Your task to perform on an android device: refresh tabs in the chrome app Image 0: 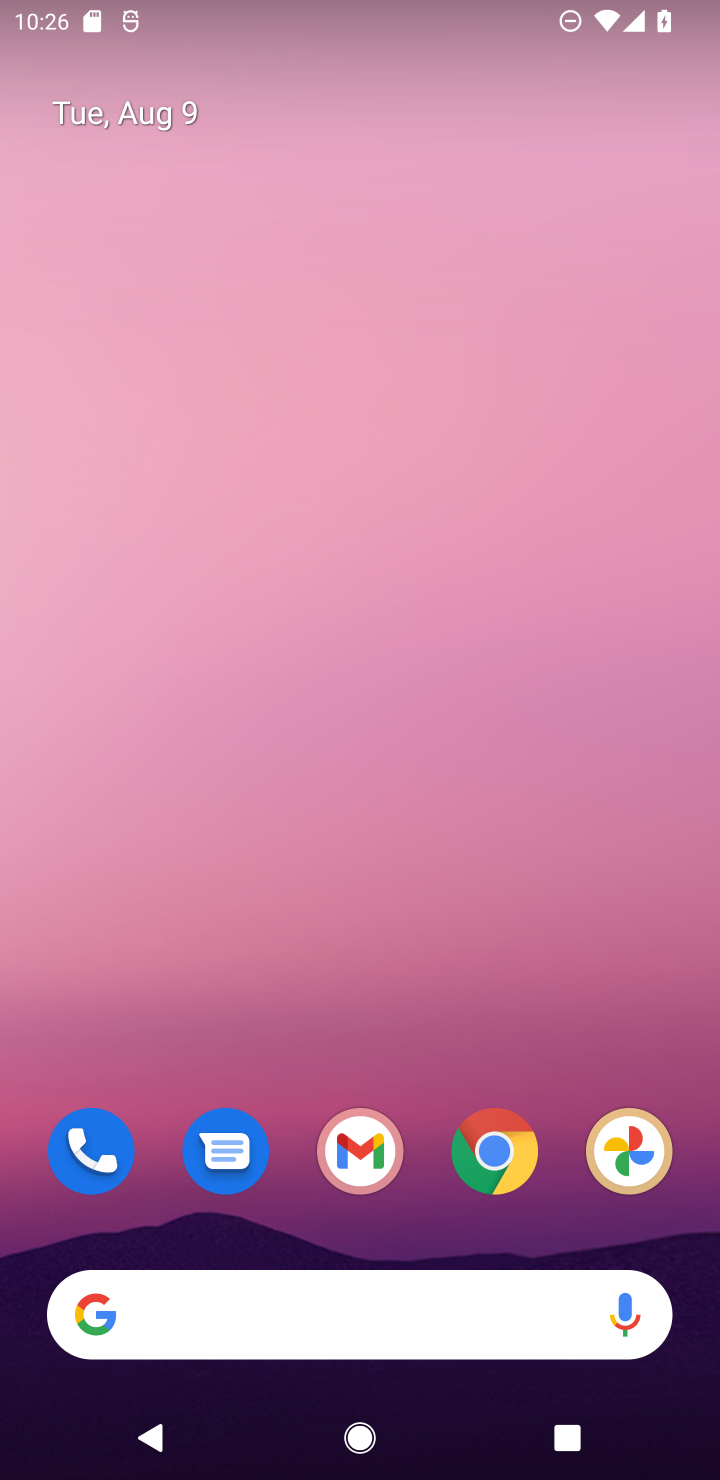
Step 0: click (493, 1164)
Your task to perform on an android device: refresh tabs in the chrome app Image 1: 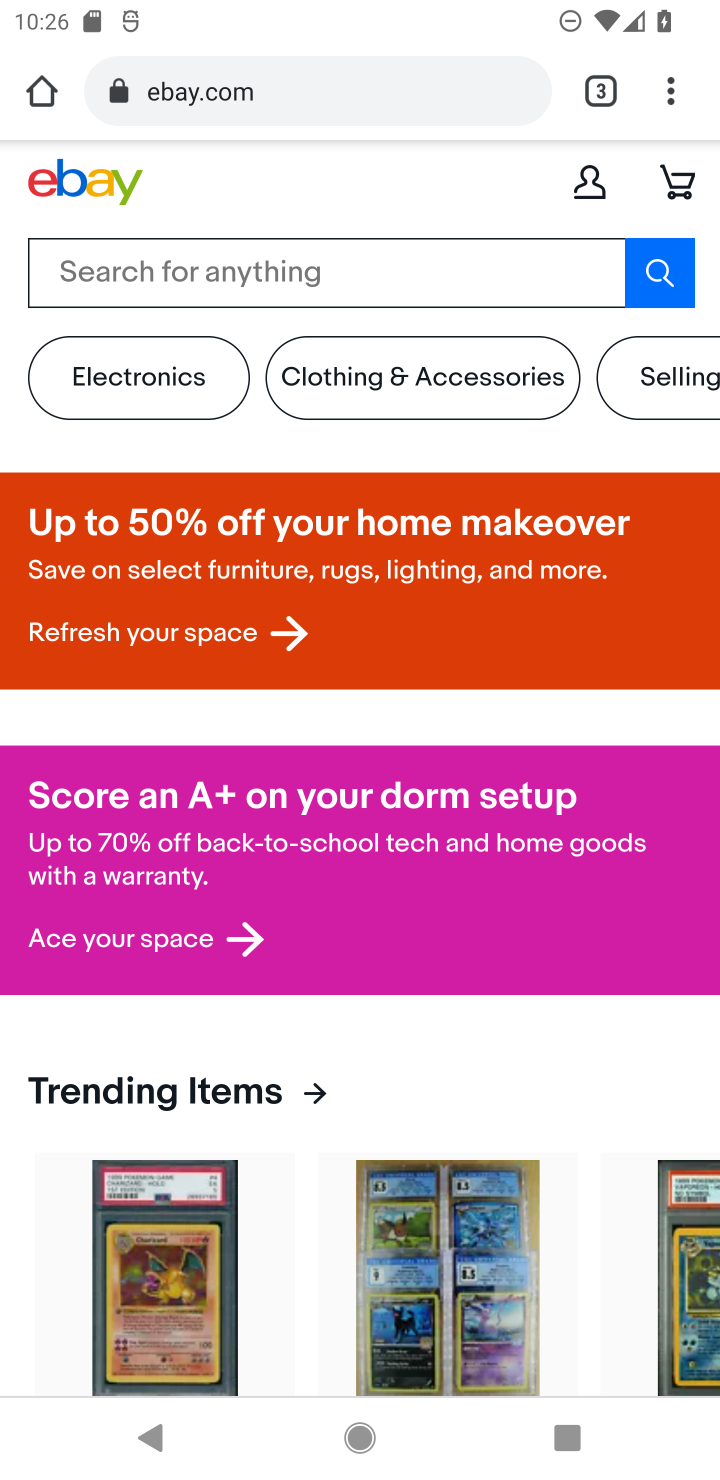
Step 1: click (604, 94)
Your task to perform on an android device: refresh tabs in the chrome app Image 2: 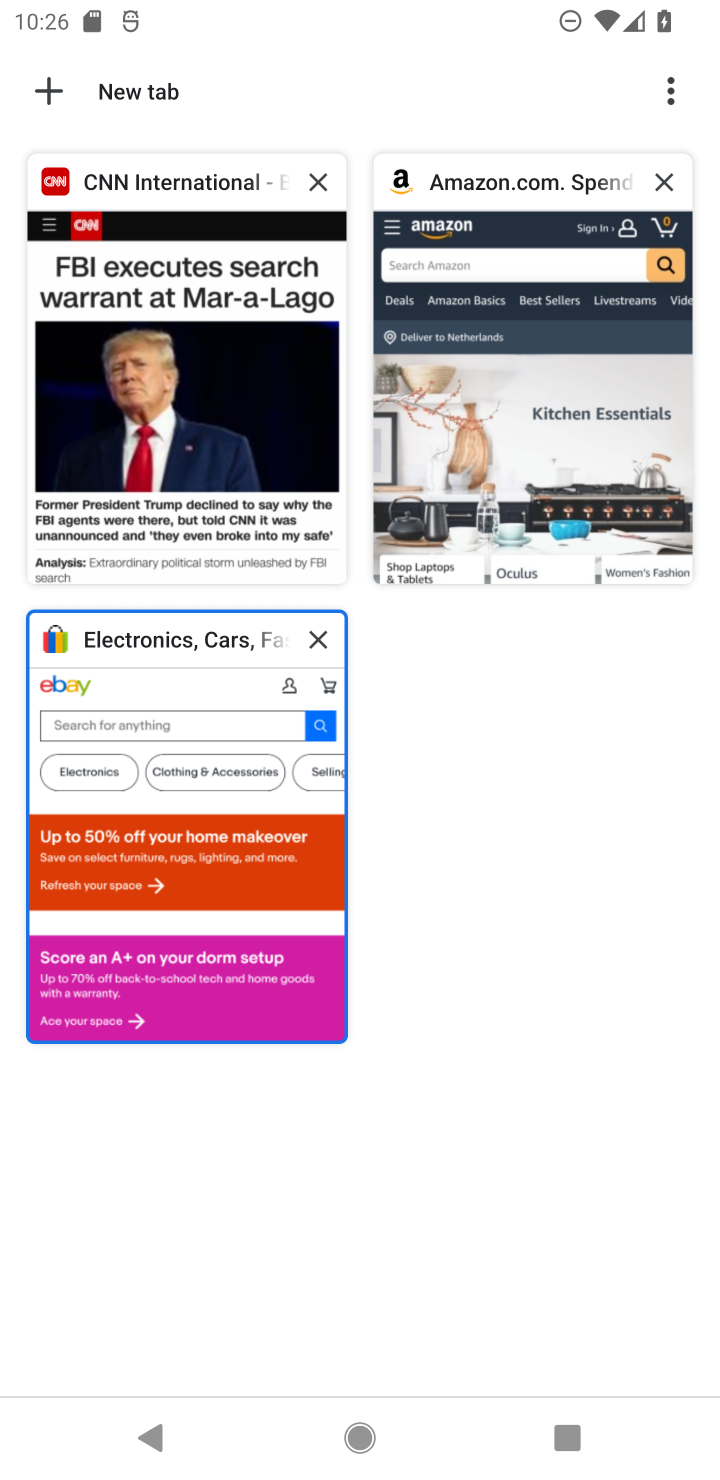
Step 2: click (667, 89)
Your task to perform on an android device: refresh tabs in the chrome app Image 3: 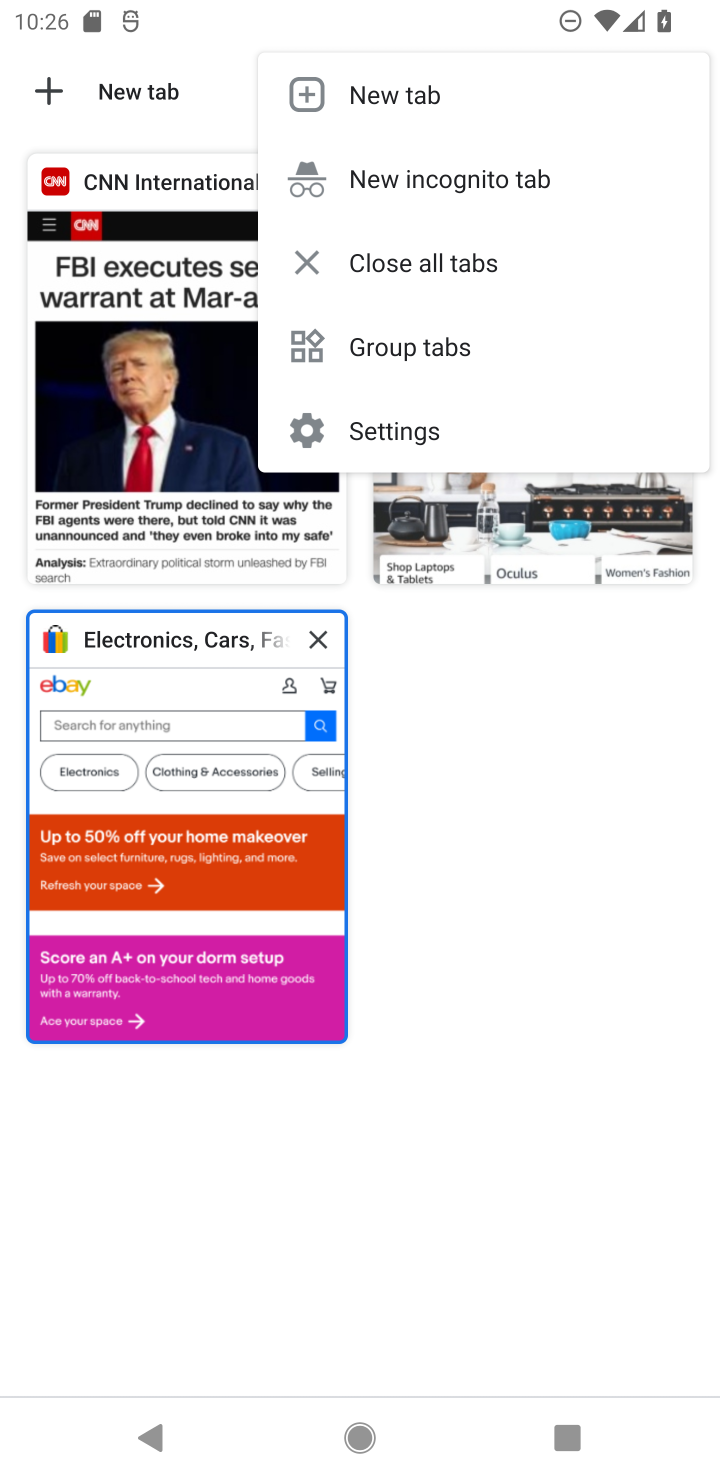
Step 3: click (519, 553)
Your task to perform on an android device: refresh tabs in the chrome app Image 4: 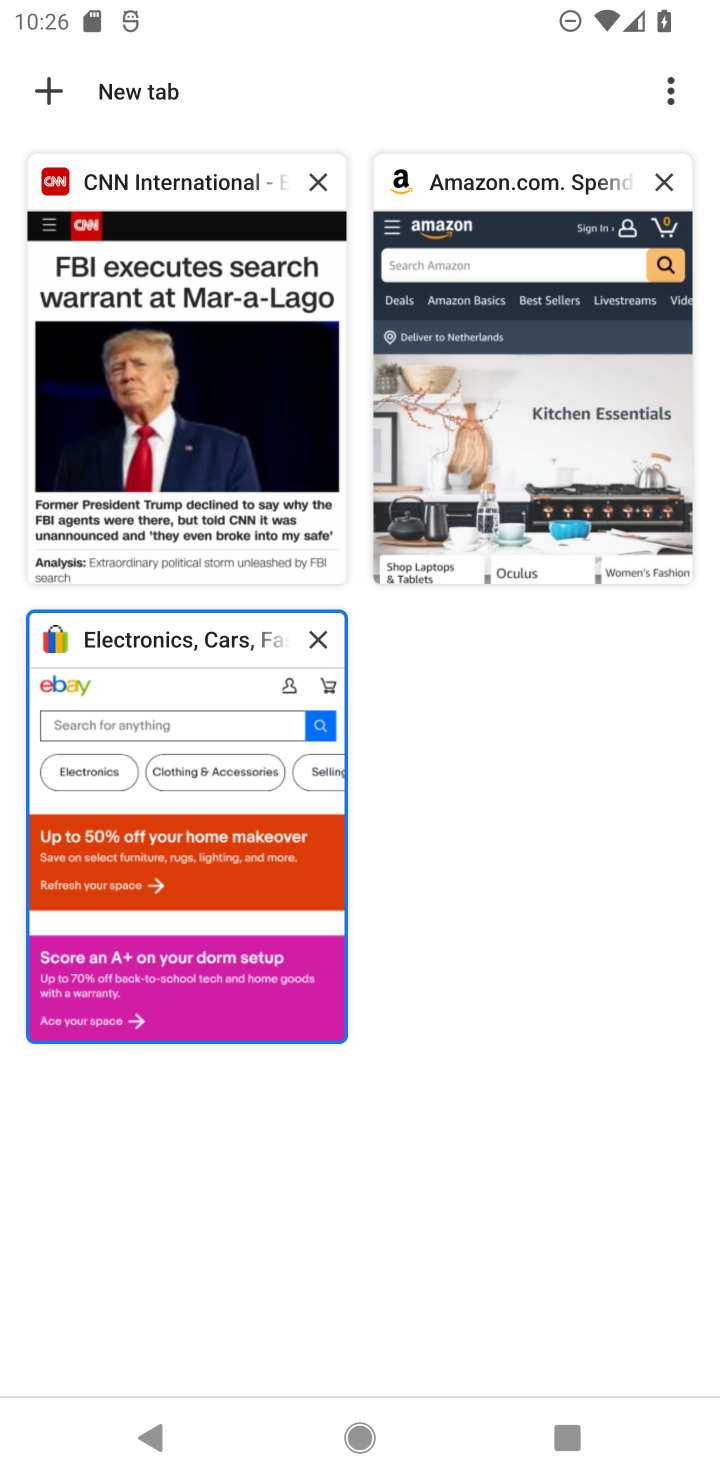
Step 4: click (230, 655)
Your task to perform on an android device: refresh tabs in the chrome app Image 5: 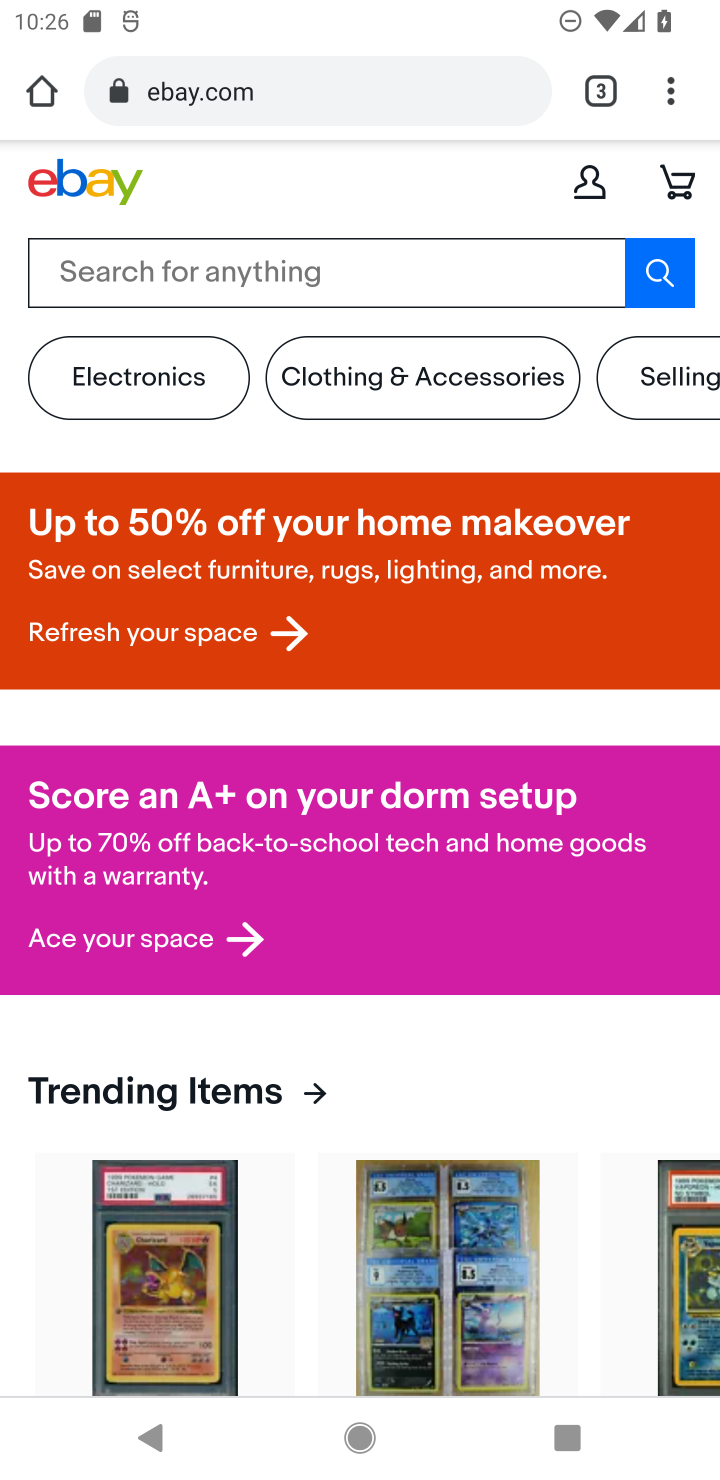
Step 5: click (663, 99)
Your task to perform on an android device: refresh tabs in the chrome app Image 6: 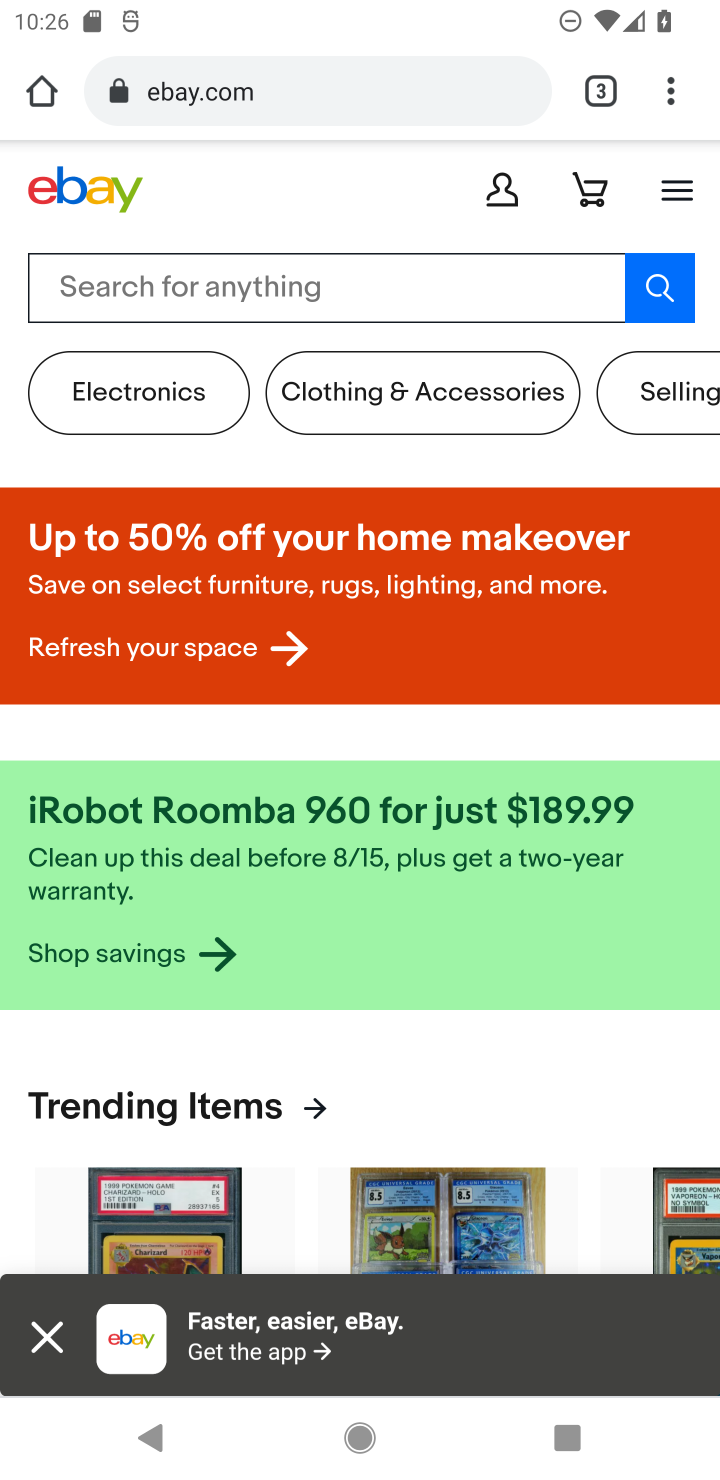
Step 6: click (670, 99)
Your task to perform on an android device: refresh tabs in the chrome app Image 7: 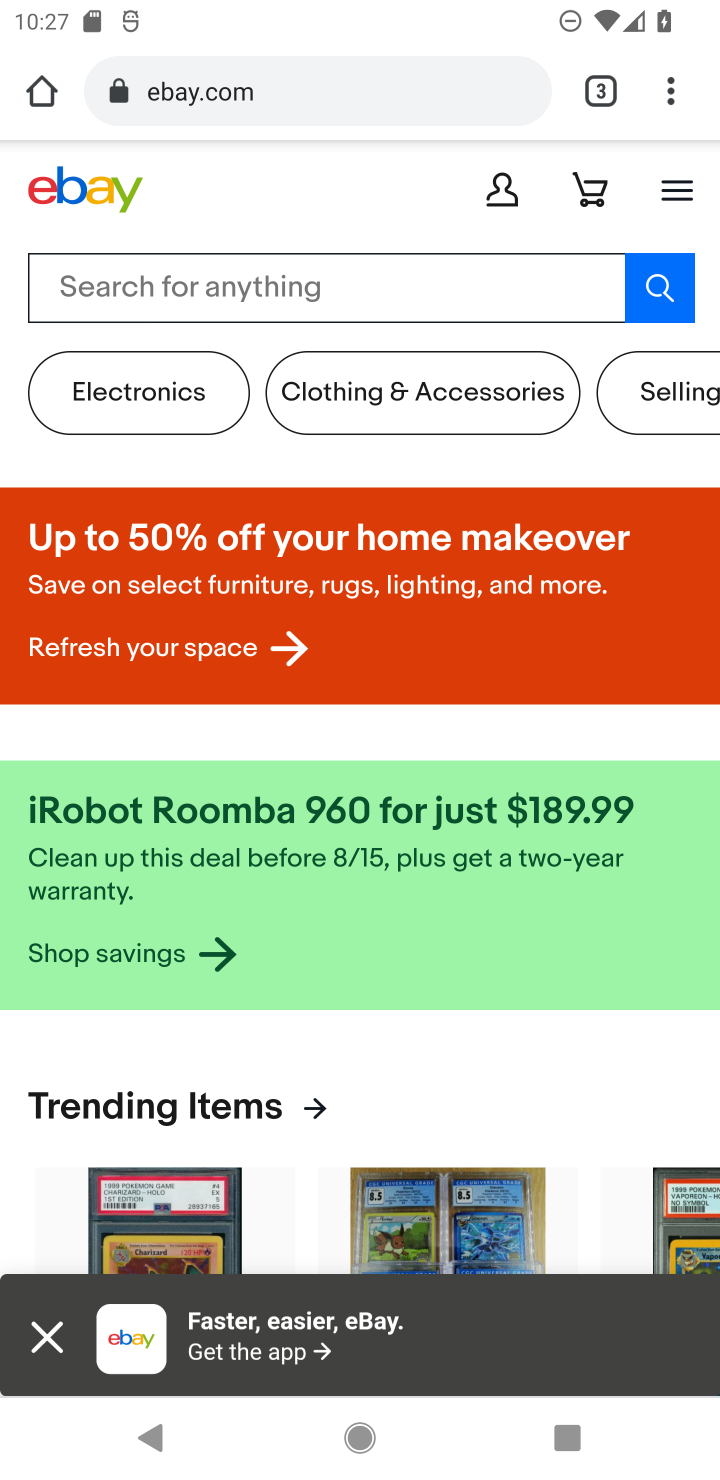
Step 7: click (667, 99)
Your task to perform on an android device: refresh tabs in the chrome app Image 8: 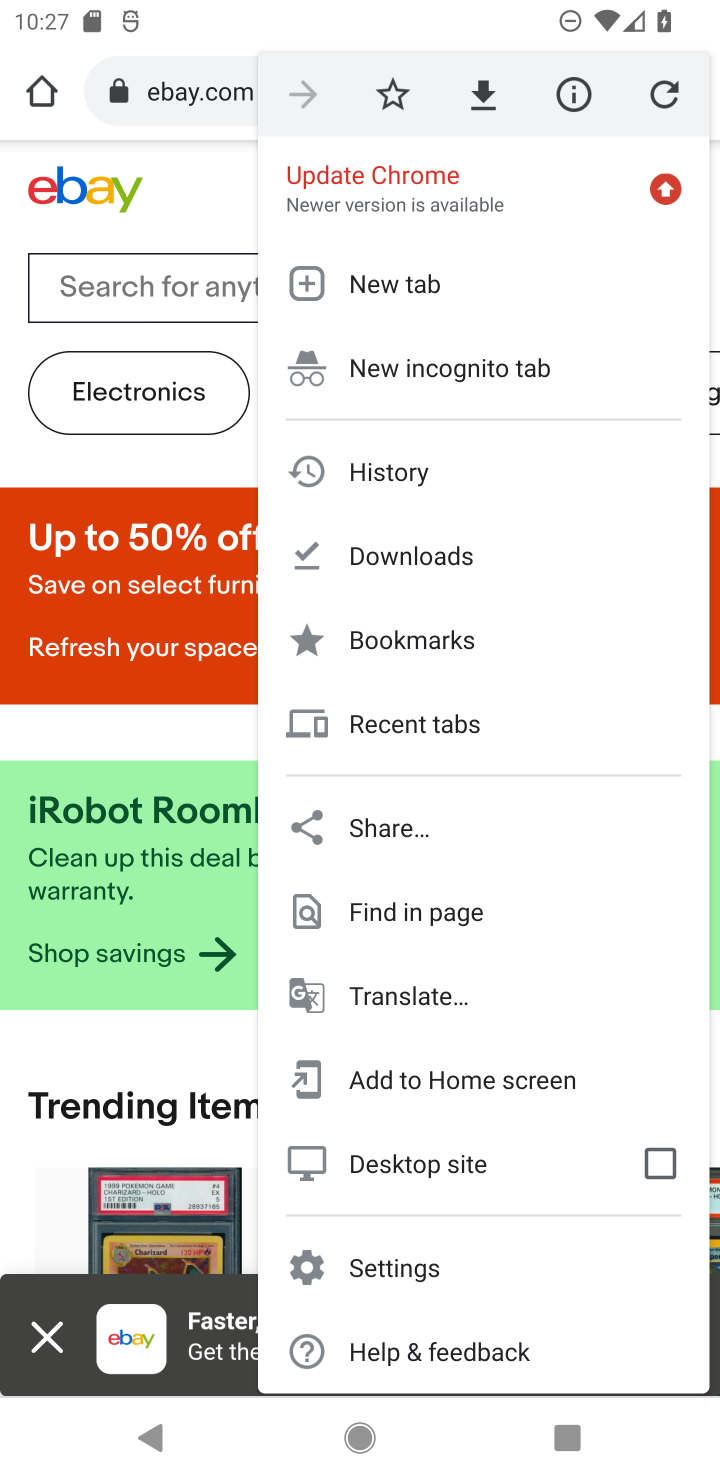
Step 8: click (670, 99)
Your task to perform on an android device: refresh tabs in the chrome app Image 9: 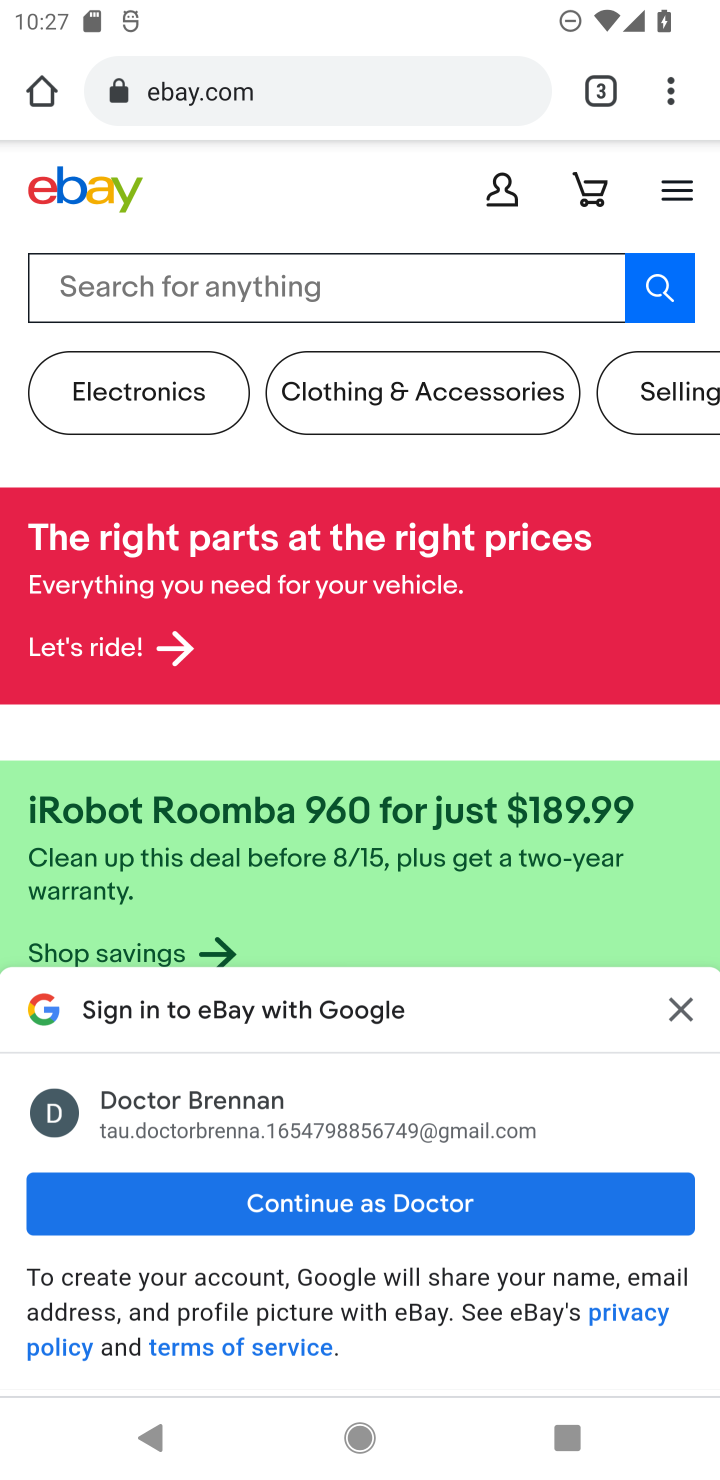
Step 9: click (672, 83)
Your task to perform on an android device: refresh tabs in the chrome app Image 10: 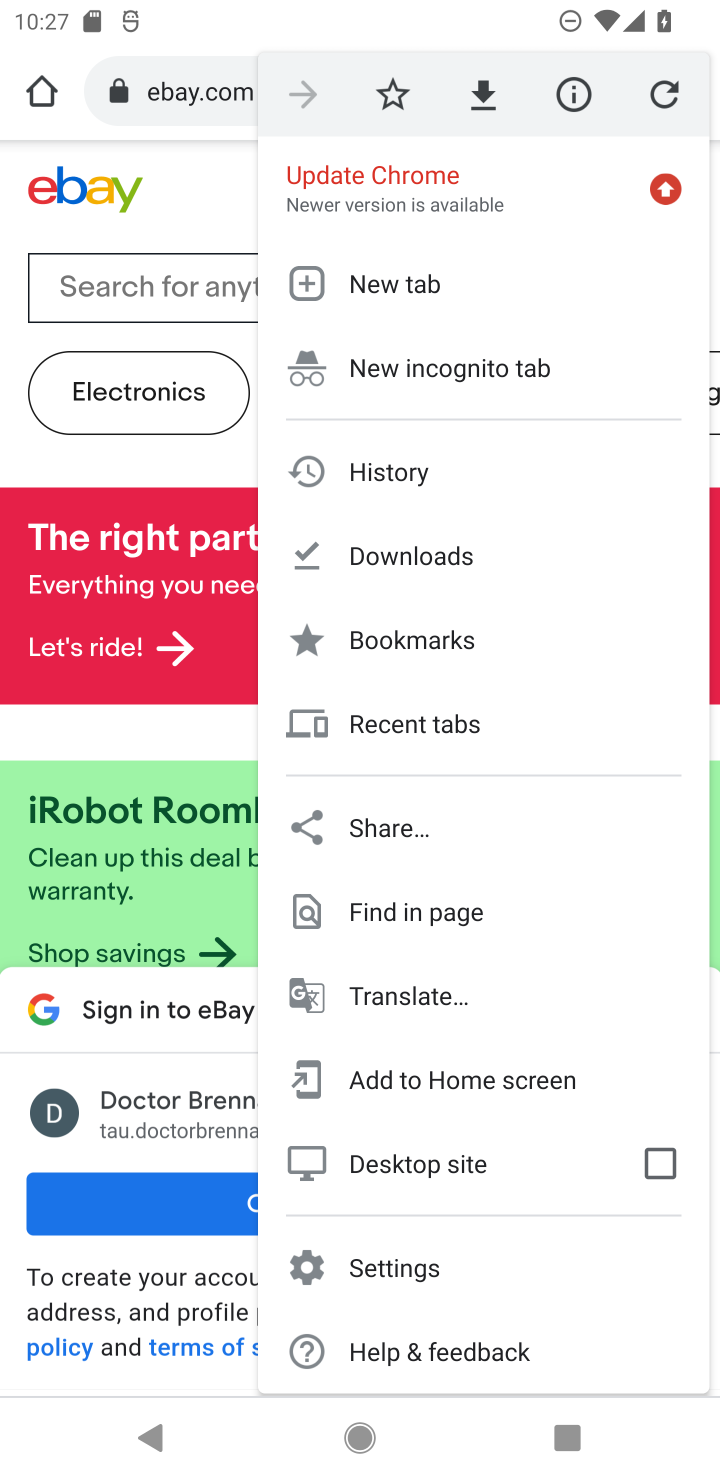
Step 10: click (667, 95)
Your task to perform on an android device: refresh tabs in the chrome app Image 11: 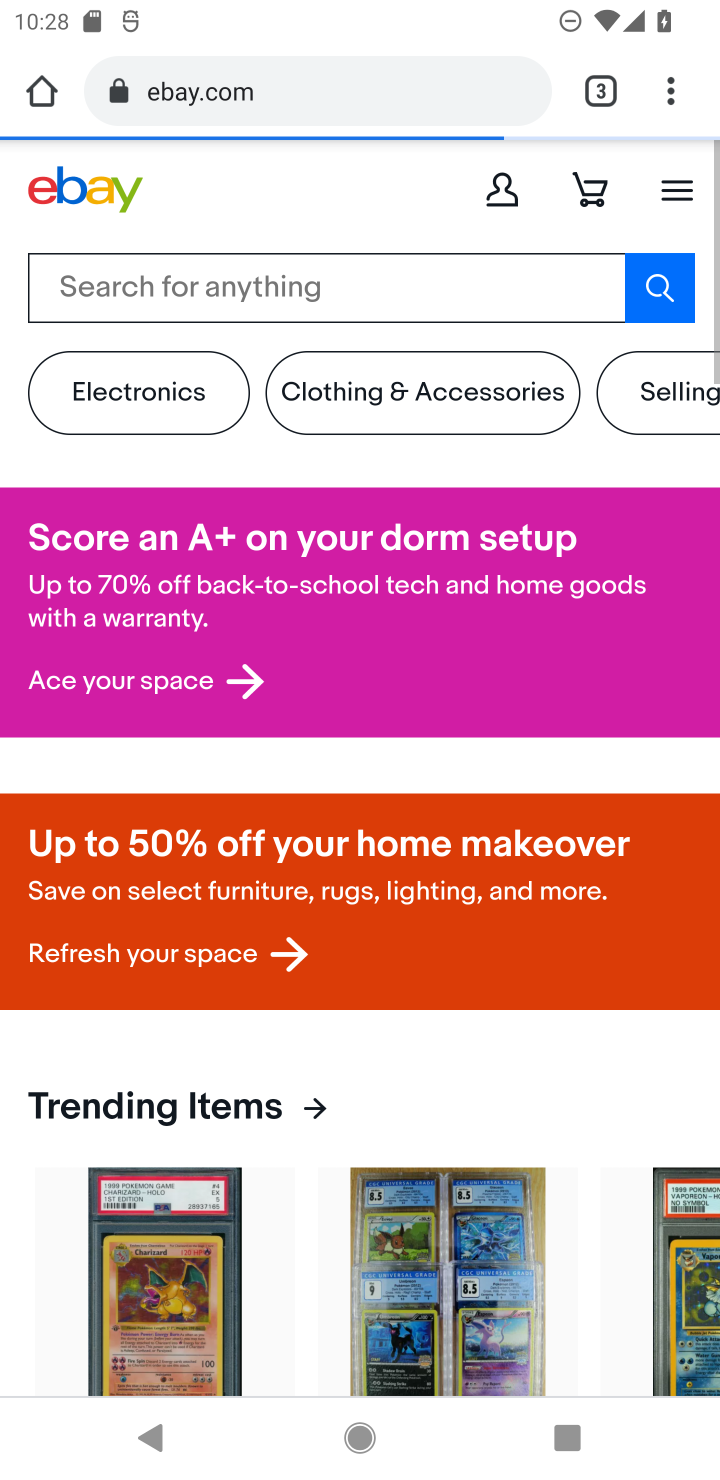
Step 11: task complete